Your task to perform on an android device: Open battery settings Image 0: 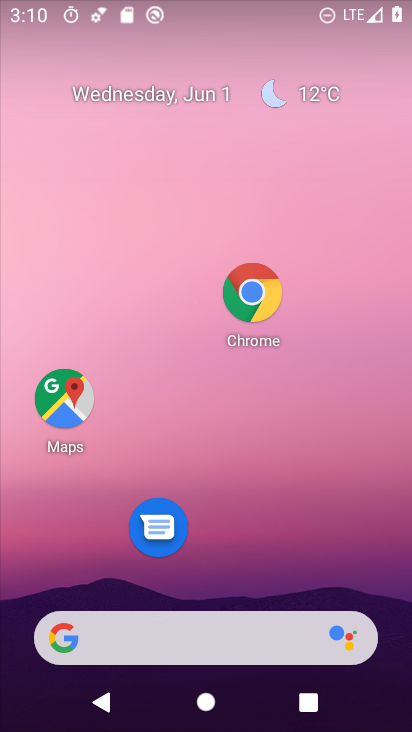
Step 0: drag from (281, 510) to (294, 298)
Your task to perform on an android device: Open battery settings Image 1: 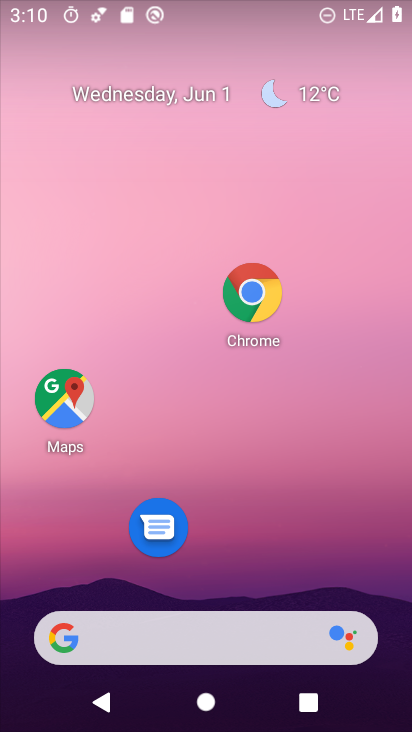
Step 1: drag from (200, 577) to (190, 0)
Your task to perform on an android device: Open battery settings Image 2: 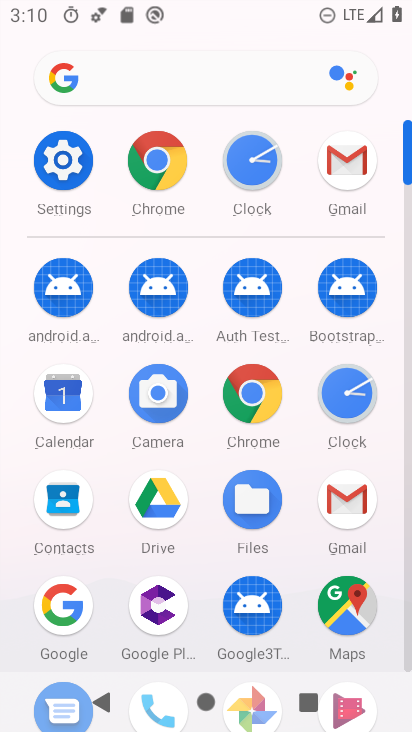
Step 2: click (80, 181)
Your task to perform on an android device: Open battery settings Image 3: 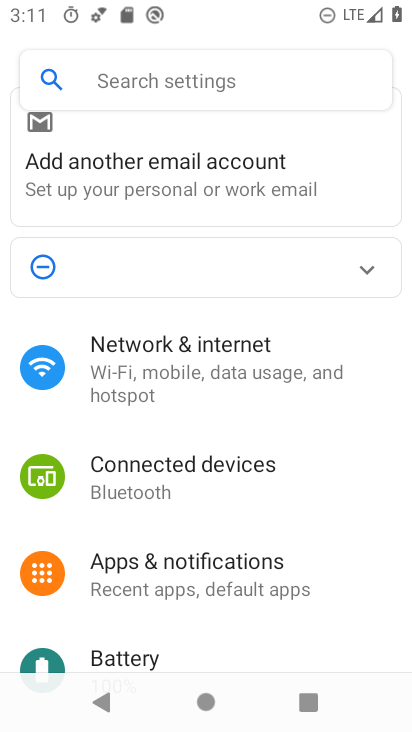
Step 3: drag from (130, 502) to (141, 212)
Your task to perform on an android device: Open battery settings Image 4: 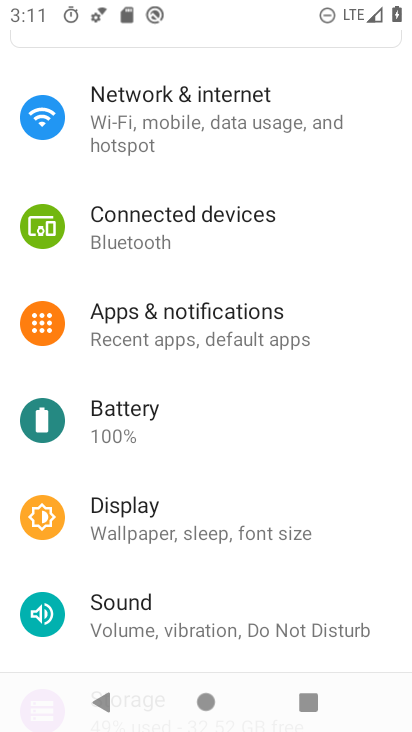
Step 4: click (208, 418)
Your task to perform on an android device: Open battery settings Image 5: 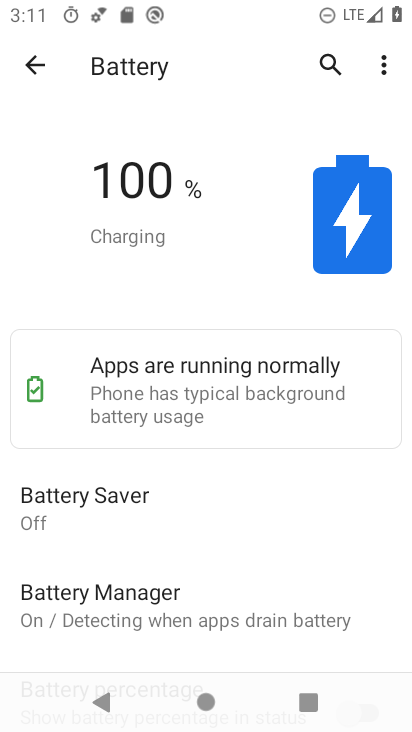
Step 5: task complete